Your task to perform on an android device: Open CNN.com Image 0: 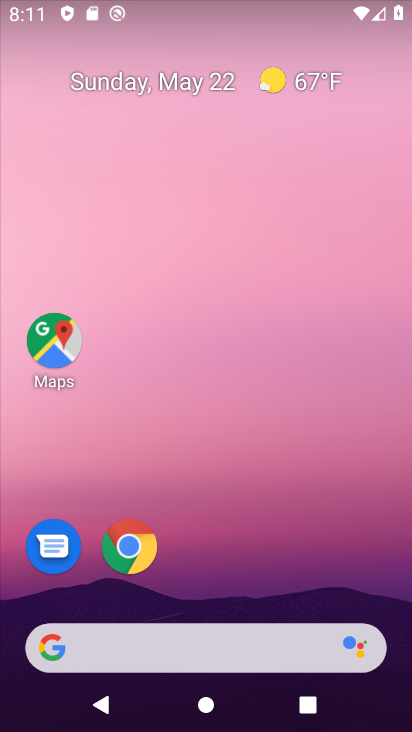
Step 0: click (137, 548)
Your task to perform on an android device: Open CNN.com Image 1: 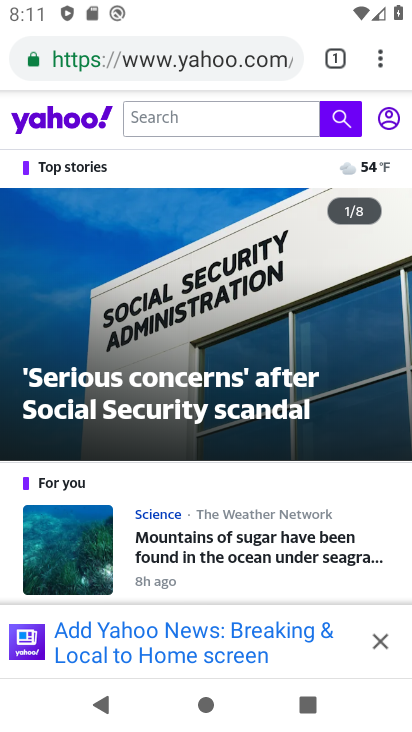
Step 1: click (199, 64)
Your task to perform on an android device: Open CNN.com Image 2: 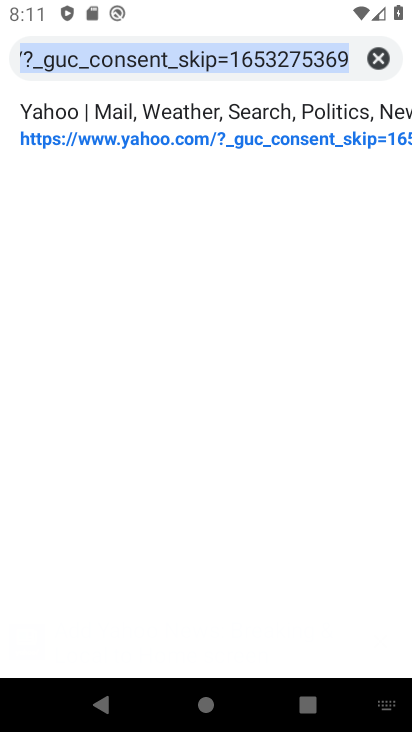
Step 2: type "CNN.com"
Your task to perform on an android device: Open CNN.com Image 3: 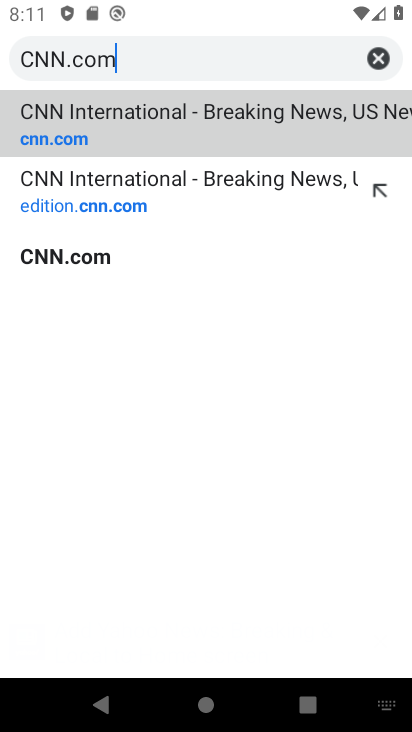
Step 3: click (117, 206)
Your task to perform on an android device: Open CNN.com Image 4: 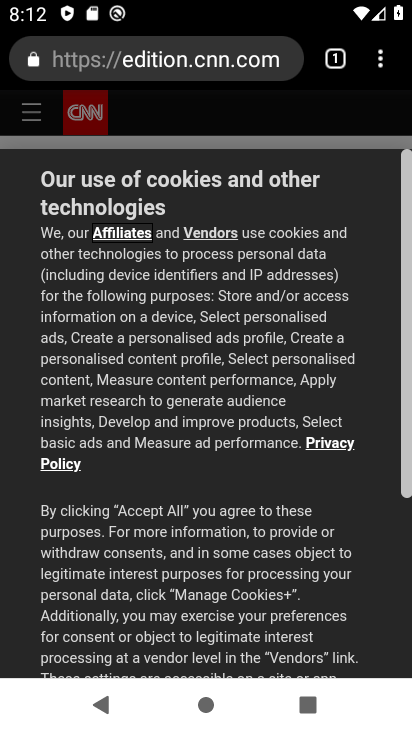
Step 4: task complete